Your task to perform on an android device: Go to Amazon Image 0: 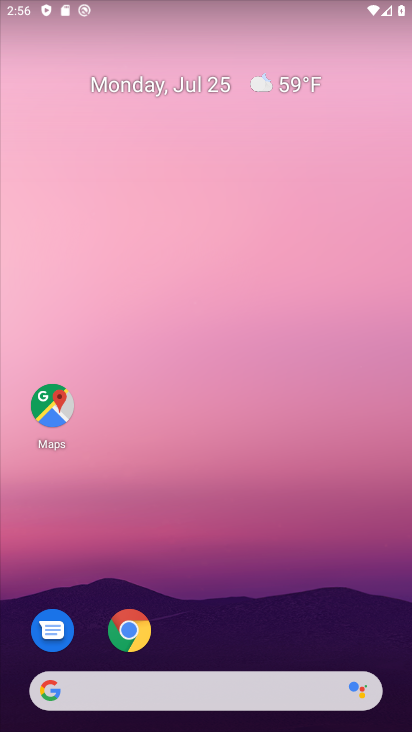
Step 0: click (129, 636)
Your task to perform on an android device: Go to Amazon Image 1: 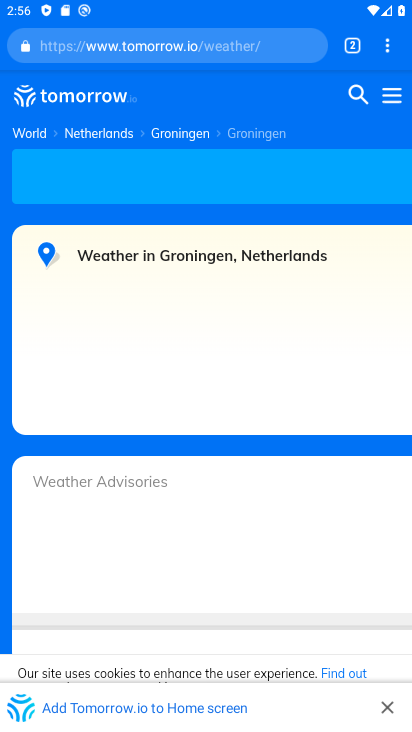
Step 1: click (179, 43)
Your task to perform on an android device: Go to Amazon Image 2: 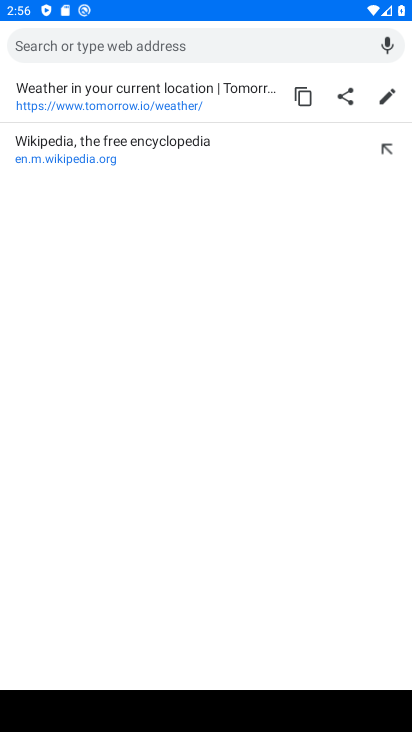
Step 2: type "amazon"
Your task to perform on an android device: Go to Amazon Image 3: 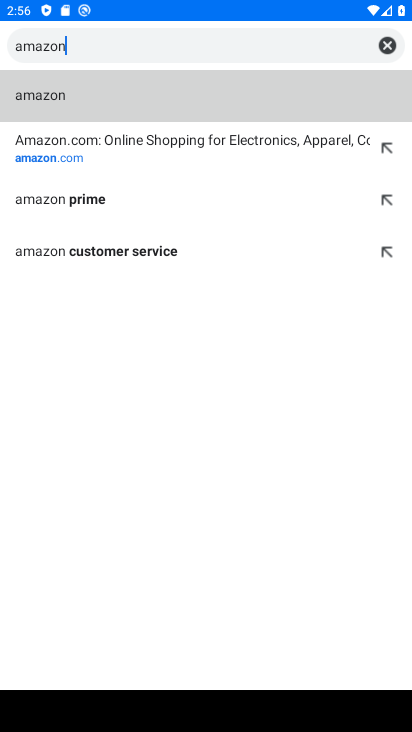
Step 3: click (295, 81)
Your task to perform on an android device: Go to Amazon Image 4: 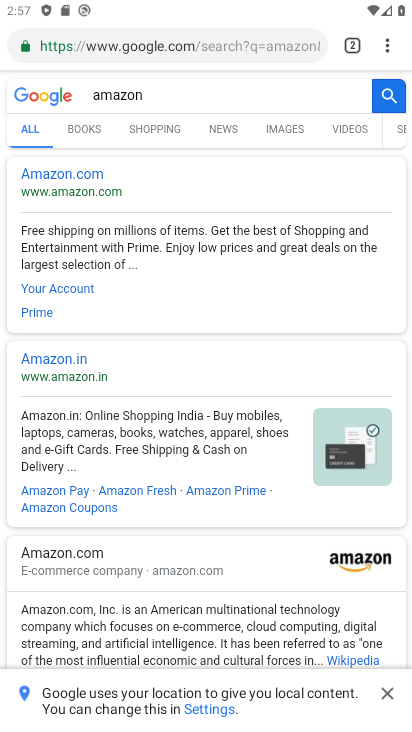
Step 4: click (66, 173)
Your task to perform on an android device: Go to Amazon Image 5: 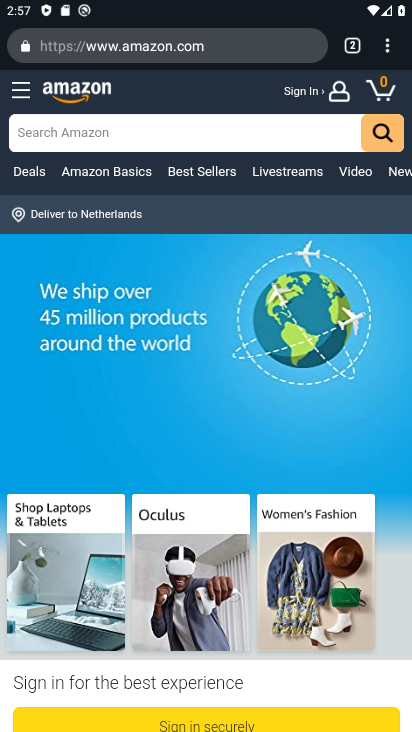
Step 5: task complete